Your task to perform on an android device: Open sound settings Image 0: 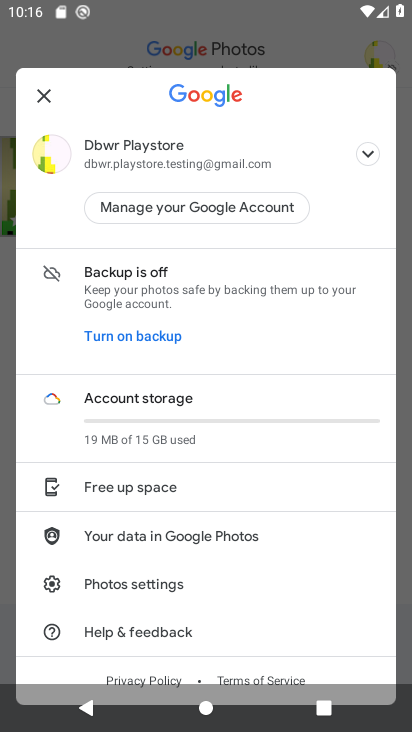
Step 0: press home button
Your task to perform on an android device: Open sound settings Image 1: 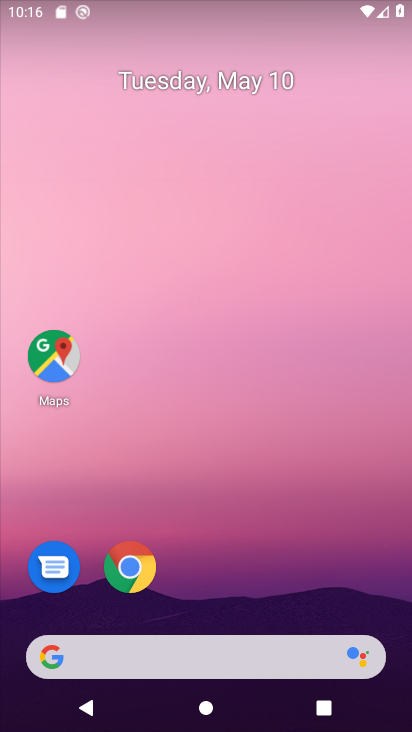
Step 1: drag from (195, 432) to (238, 36)
Your task to perform on an android device: Open sound settings Image 2: 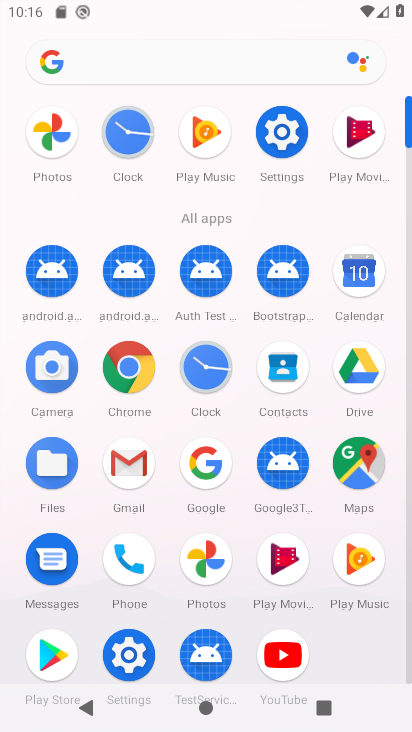
Step 2: click (274, 139)
Your task to perform on an android device: Open sound settings Image 3: 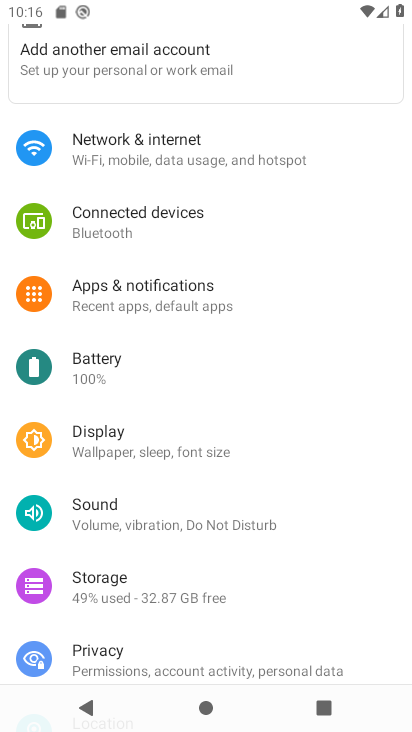
Step 3: click (147, 508)
Your task to perform on an android device: Open sound settings Image 4: 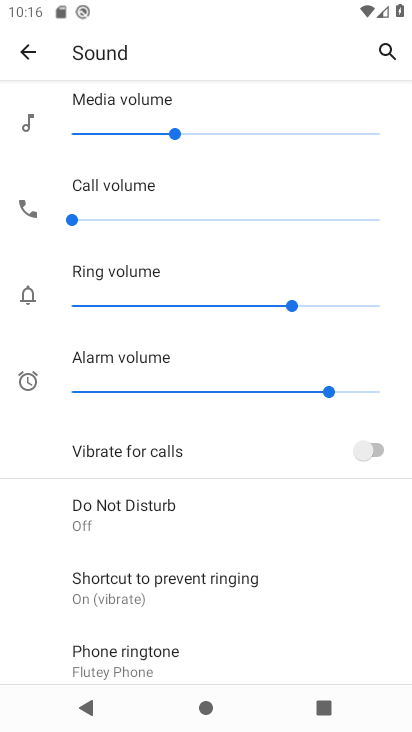
Step 4: task complete